Your task to perform on an android device: turn off notifications settings in the gmail app Image 0: 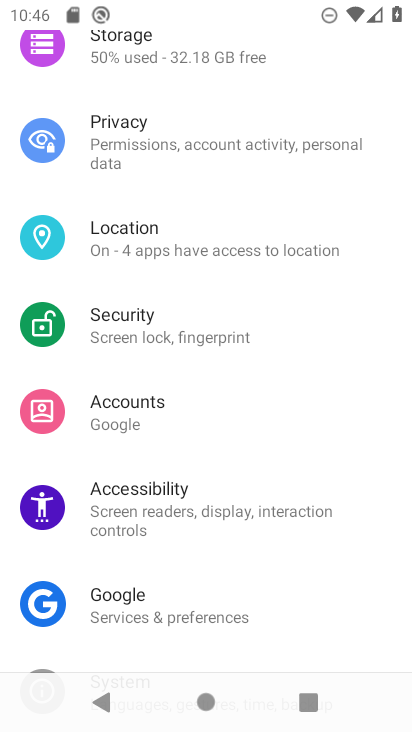
Step 0: press home button
Your task to perform on an android device: turn off notifications settings in the gmail app Image 1: 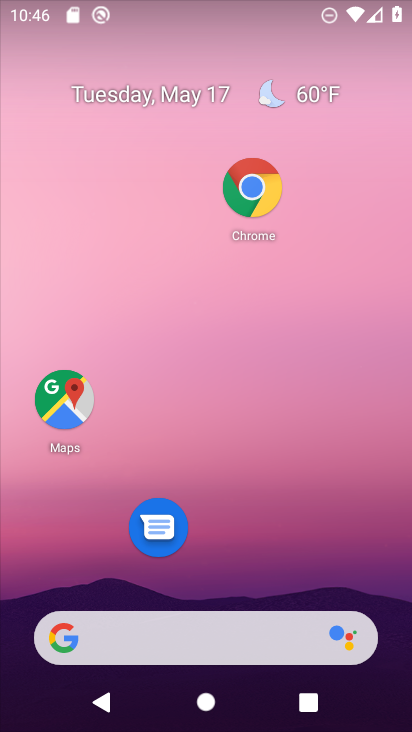
Step 1: drag from (336, 590) to (314, 185)
Your task to perform on an android device: turn off notifications settings in the gmail app Image 2: 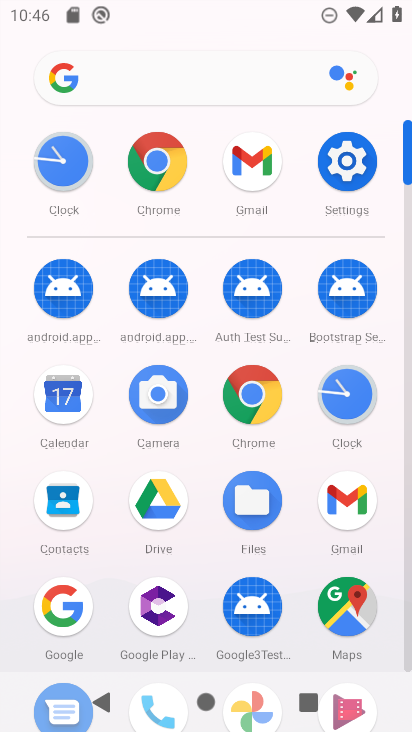
Step 2: click (256, 203)
Your task to perform on an android device: turn off notifications settings in the gmail app Image 3: 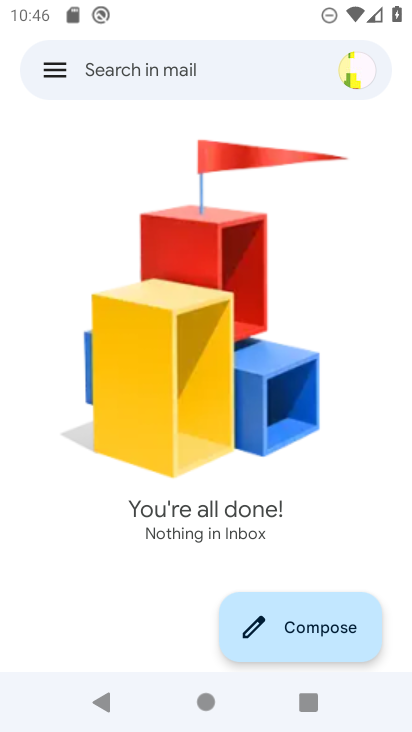
Step 3: click (66, 66)
Your task to perform on an android device: turn off notifications settings in the gmail app Image 4: 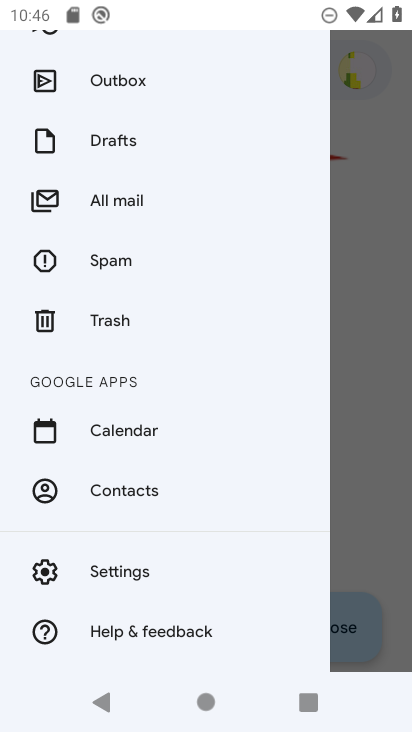
Step 4: click (122, 555)
Your task to perform on an android device: turn off notifications settings in the gmail app Image 5: 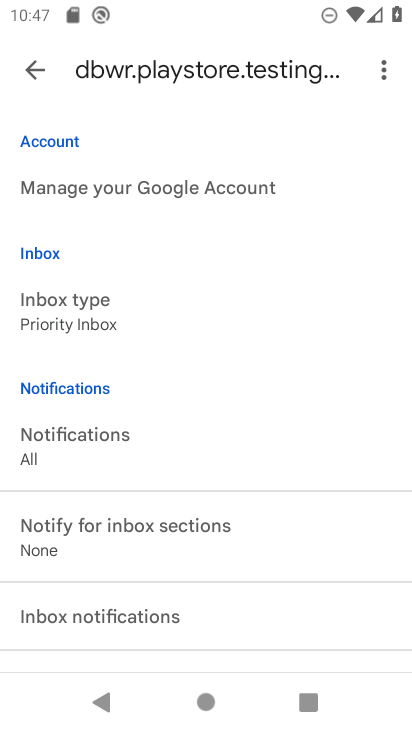
Step 5: drag from (117, 448) to (100, 214)
Your task to perform on an android device: turn off notifications settings in the gmail app Image 6: 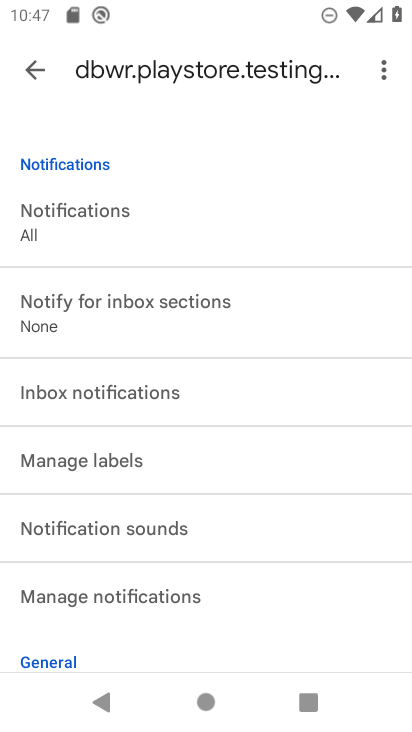
Step 6: click (109, 510)
Your task to perform on an android device: turn off notifications settings in the gmail app Image 7: 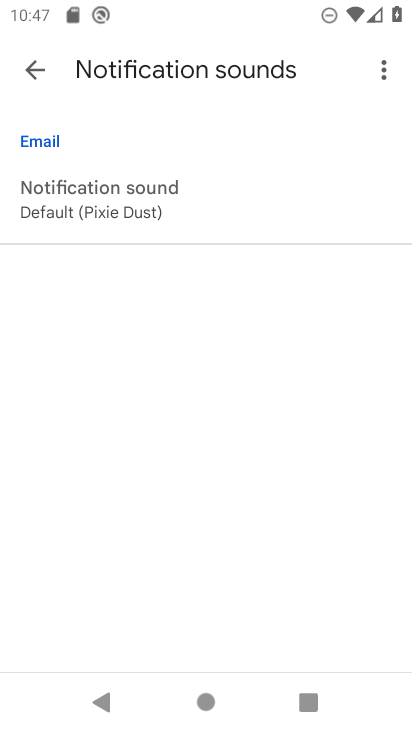
Step 7: click (44, 69)
Your task to perform on an android device: turn off notifications settings in the gmail app Image 8: 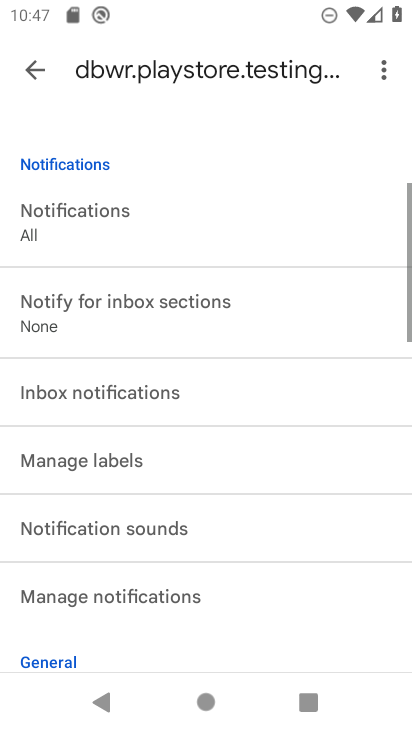
Step 8: click (161, 583)
Your task to perform on an android device: turn off notifications settings in the gmail app Image 9: 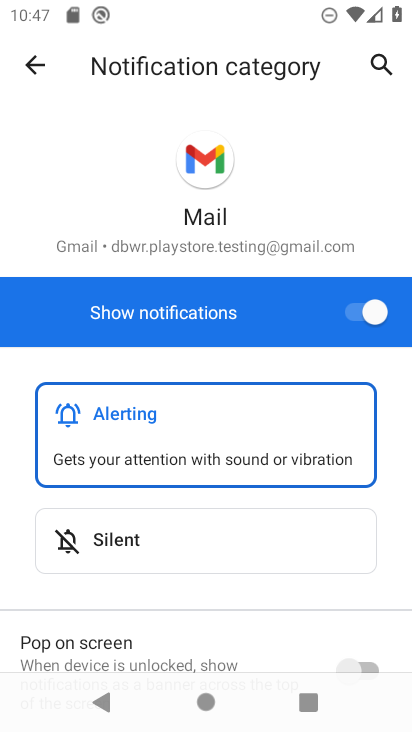
Step 9: click (326, 291)
Your task to perform on an android device: turn off notifications settings in the gmail app Image 10: 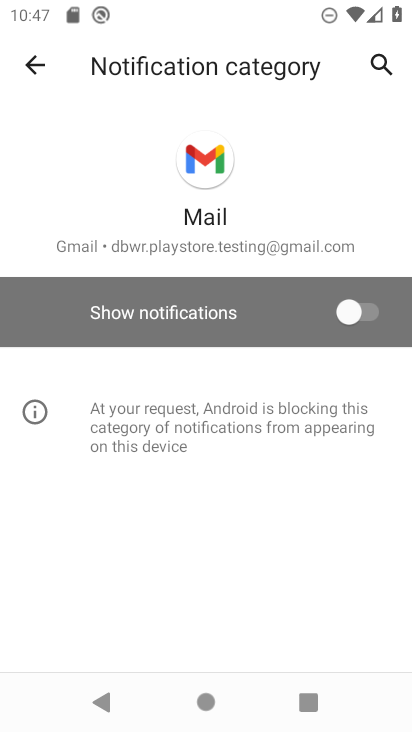
Step 10: task complete